Your task to perform on an android device: change notifications settings Image 0: 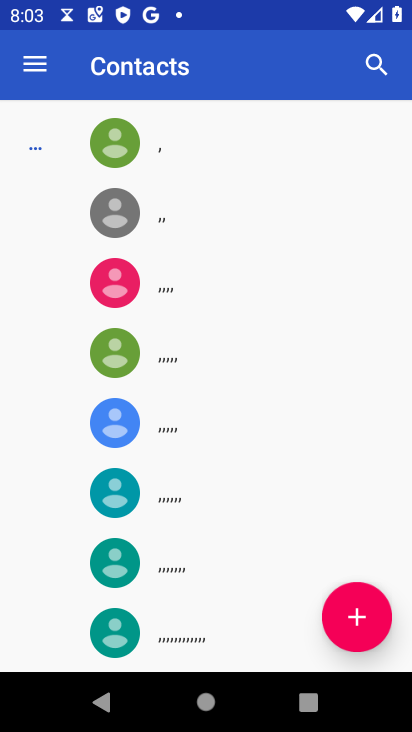
Step 0: press home button
Your task to perform on an android device: change notifications settings Image 1: 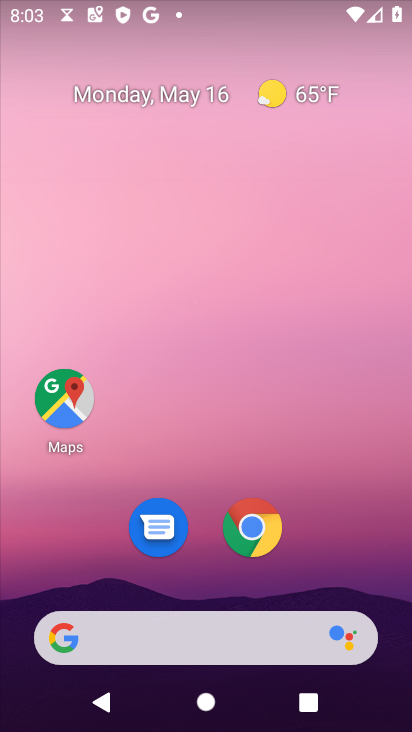
Step 1: drag from (316, 551) to (361, 320)
Your task to perform on an android device: change notifications settings Image 2: 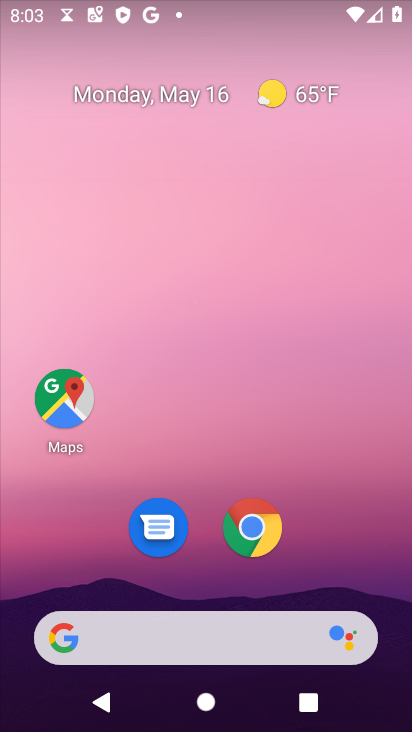
Step 2: drag from (320, 559) to (346, 356)
Your task to perform on an android device: change notifications settings Image 3: 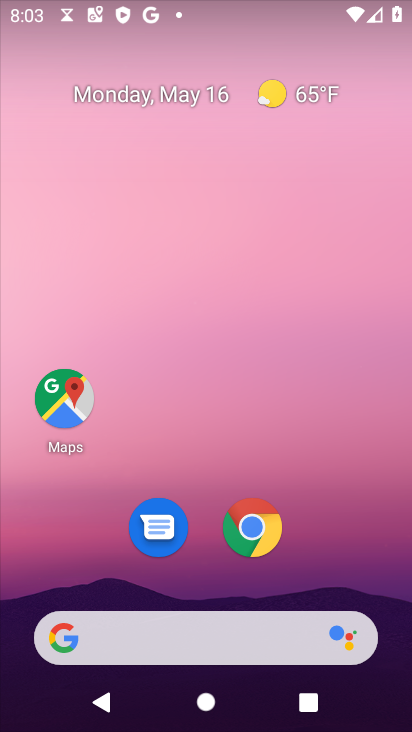
Step 3: drag from (297, 568) to (340, 227)
Your task to perform on an android device: change notifications settings Image 4: 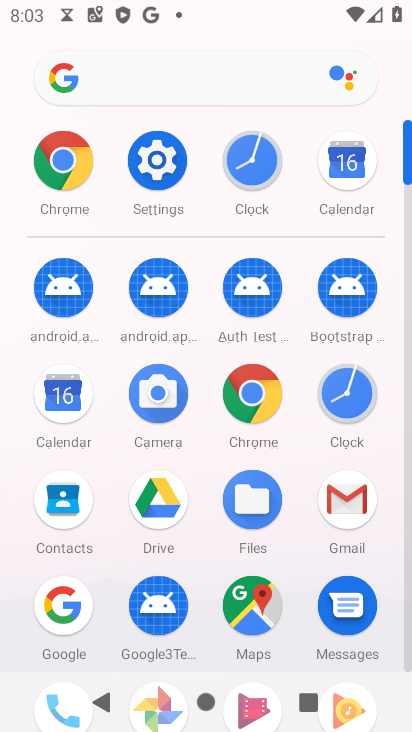
Step 4: click (144, 150)
Your task to perform on an android device: change notifications settings Image 5: 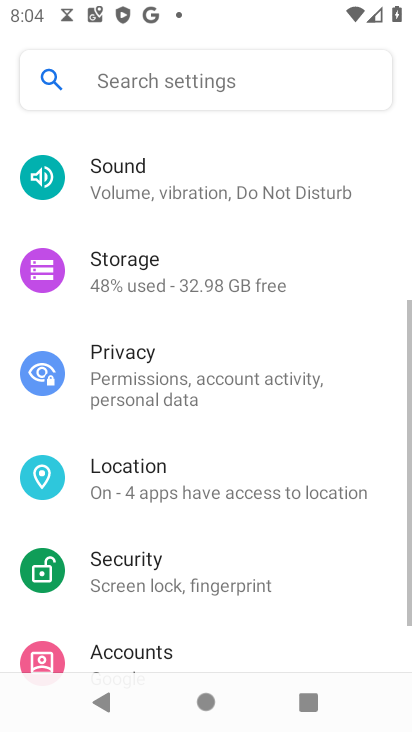
Step 5: drag from (174, 308) to (152, 569)
Your task to perform on an android device: change notifications settings Image 6: 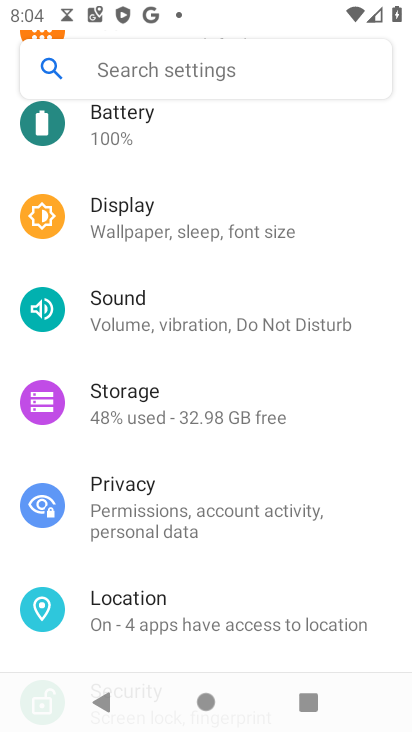
Step 6: drag from (153, 204) to (130, 570)
Your task to perform on an android device: change notifications settings Image 7: 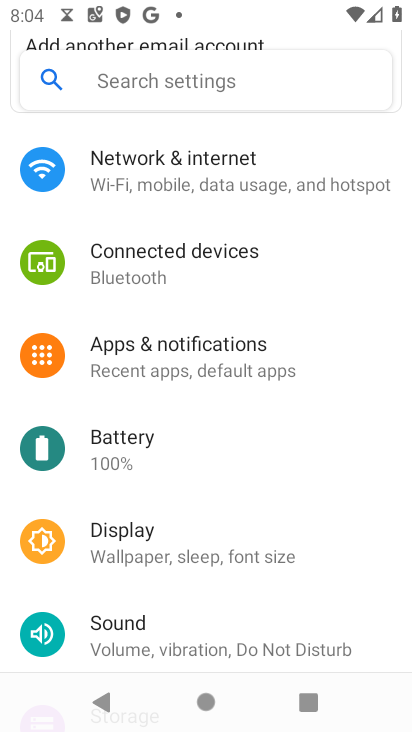
Step 7: click (189, 343)
Your task to perform on an android device: change notifications settings Image 8: 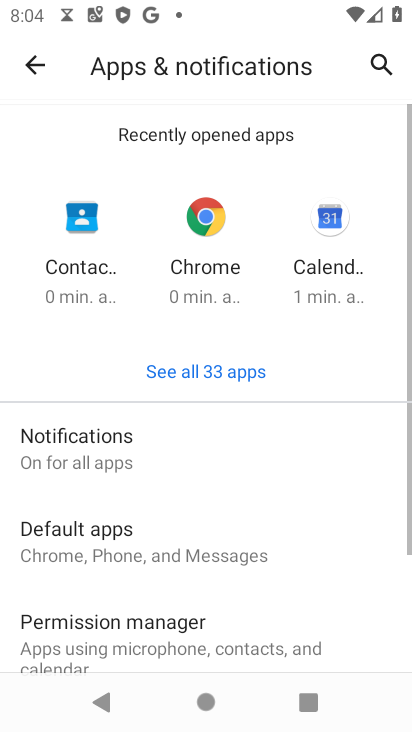
Step 8: click (131, 437)
Your task to perform on an android device: change notifications settings Image 9: 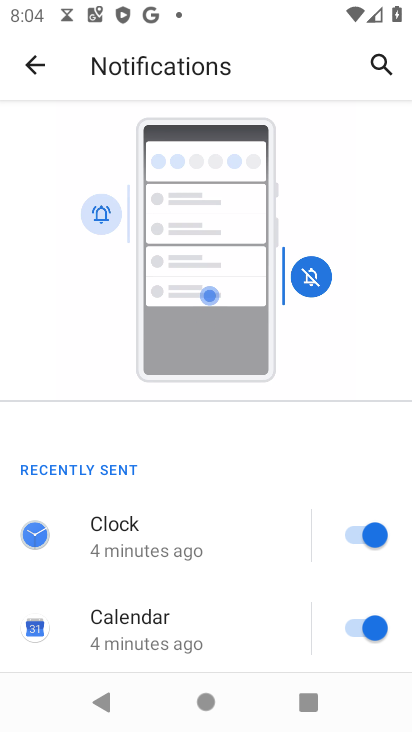
Step 9: drag from (233, 621) to (305, 318)
Your task to perform on an android device: change notifications settings Image 10: 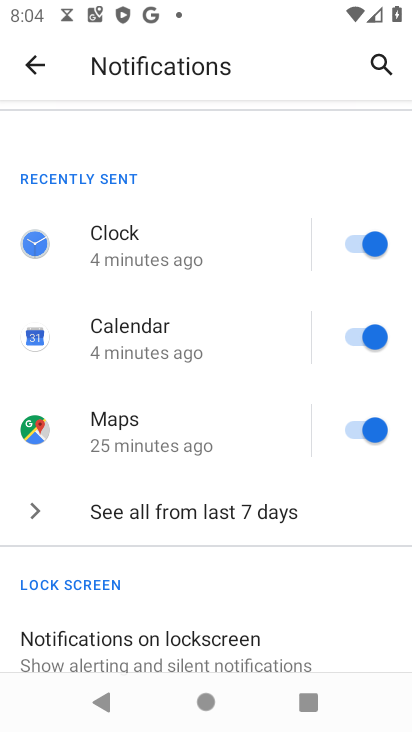
Step 10: click (350, 242)
Your task to perform on an android device: change notifications settings Image 11: 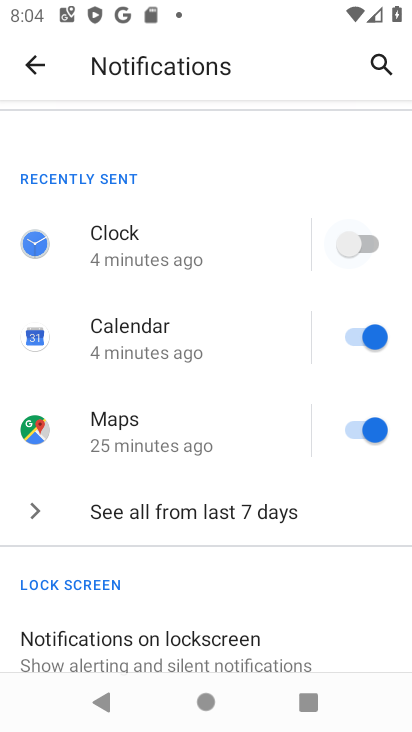
Step 11: click (349, 342)
Your task to perform on an android device: change notifications settings Image 12: 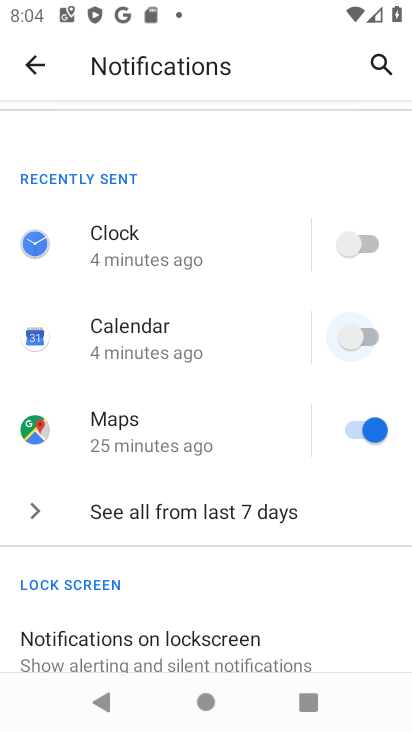
Step 12: click (373, 443)
Your task to perform on an android device: change notifications settings Image 13: 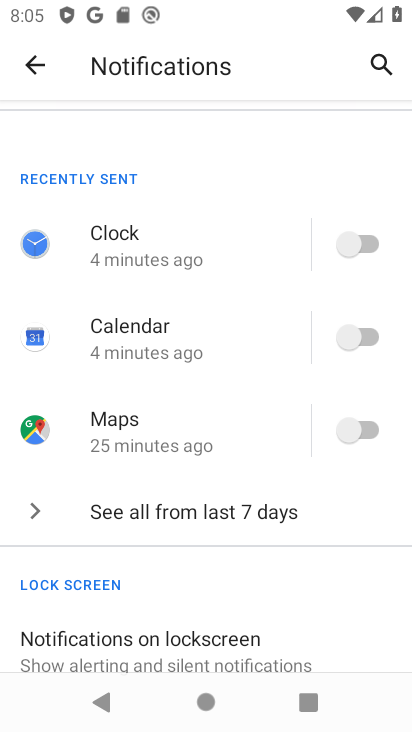
Step 13: task complete